Your task to perform on an android device: toggle pop-ups in chrome Image 0: 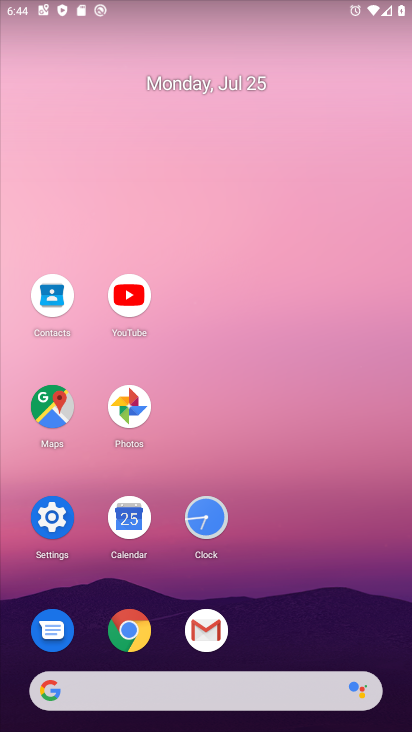
Step 0: click (126, 628)
Your task to perform on an android device: toggle pop-ups in chrome Image 1: 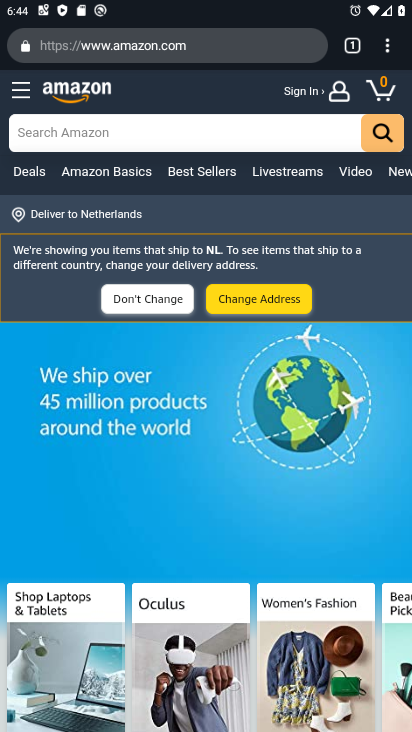
Step 1: click (390, 49)
Your task to perform on an android device: toggle pop-ups in chrome Image 2: 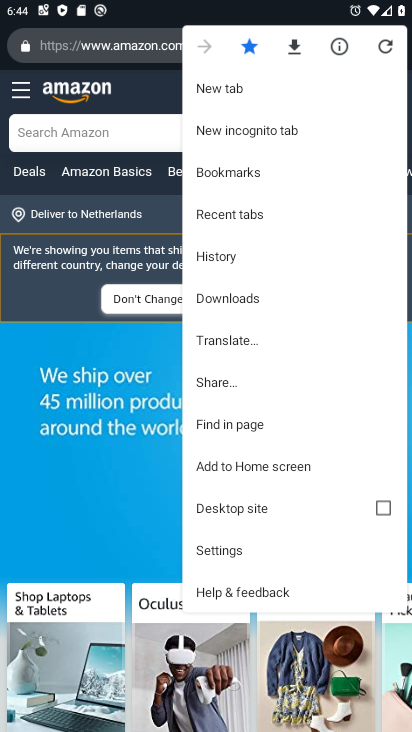
Step 2: click (223, 544)
Your task to perform on an android device: toggle pop-ups in chrome Image 3: 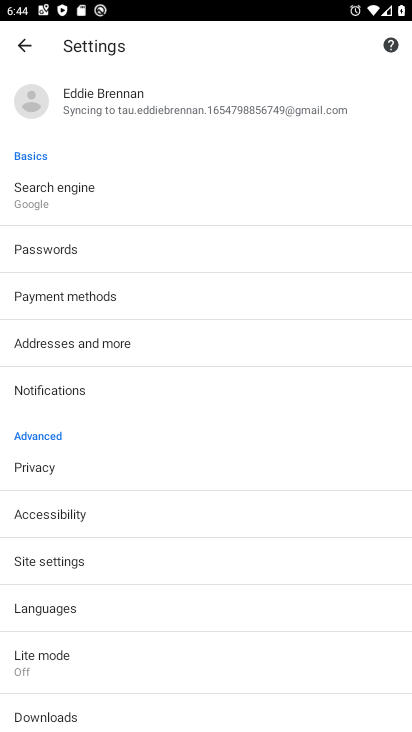
Step 3: click (54, 566)
Your task to perform on an android device: toggle pop-ups in chrome Image 4: 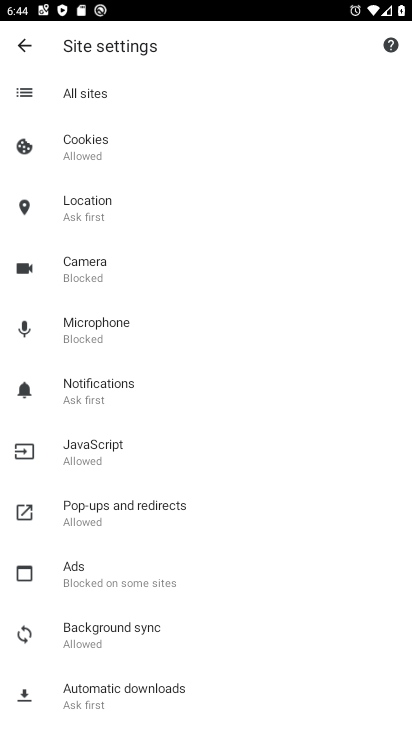
Step 4: click (108, 512)
Your task to perform on an android device: toggle pop-ups in chrome Image 5: 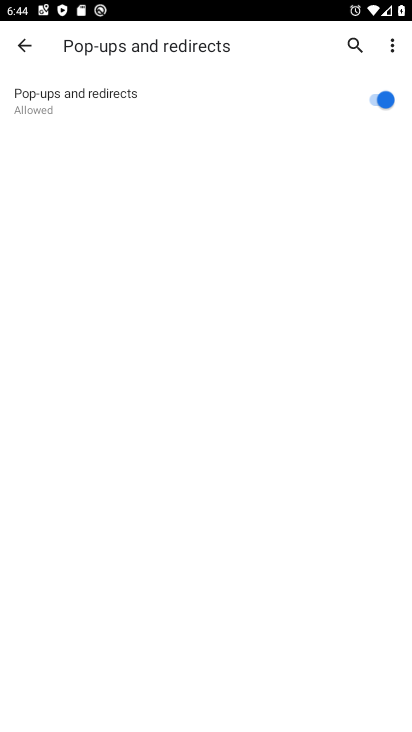
Step 5: click (390, 102)
Your task to perform on an android device: toggle pop-ups in chrome Image 6: 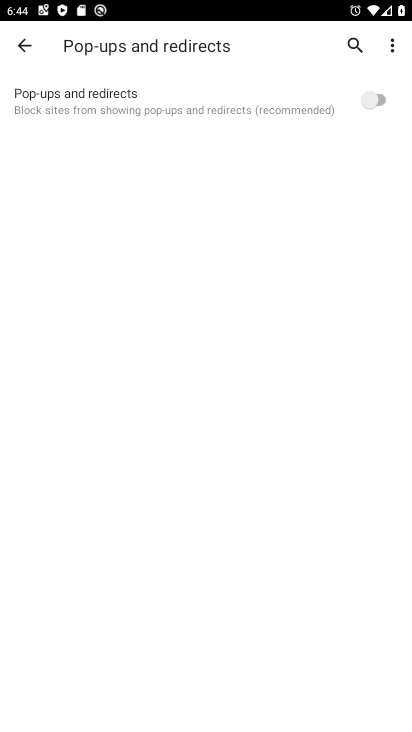
Step 6: task complete